Your task to perform on an android device: Go to settings Image 0: 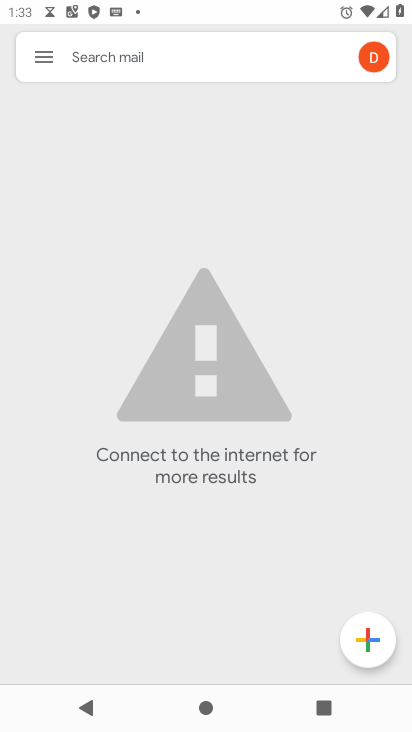
Step 0: press home button
Your task to perform on an android device: Go to settings Image 1: 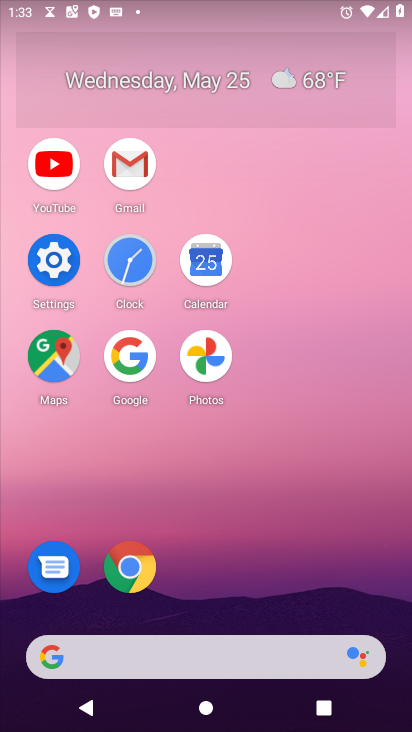
Step 1: click (64, 255)
Your task to perform on an android device: Go to settings Image 2: 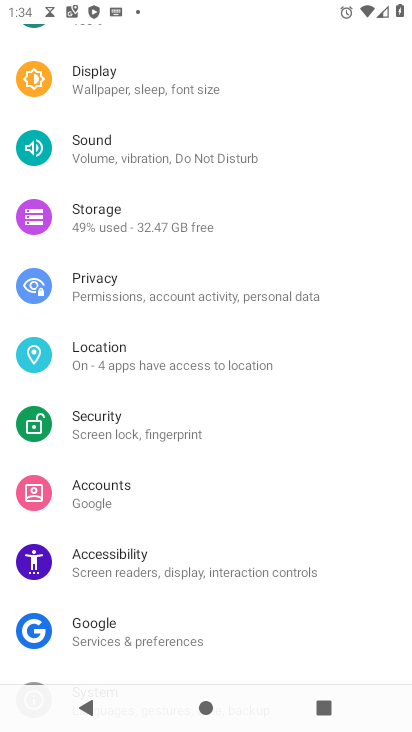
Step 2: task complete